Your task to perform on an android device: Open wifi settings Image 0: 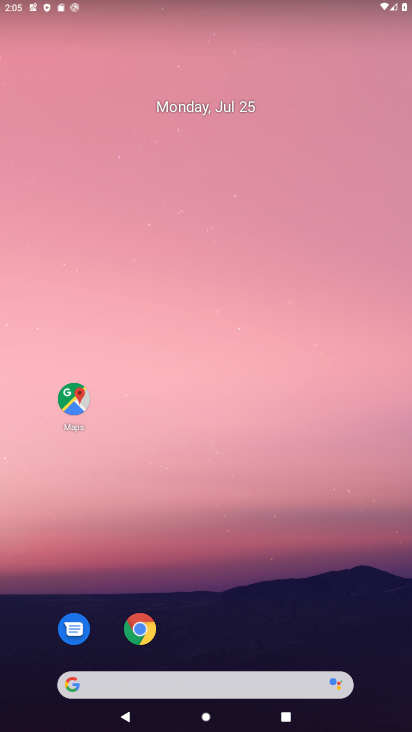
Step 0: drag from (249, 316) to (252, 1)
Your task to perform on an android device: Open wifi settings Image 1: 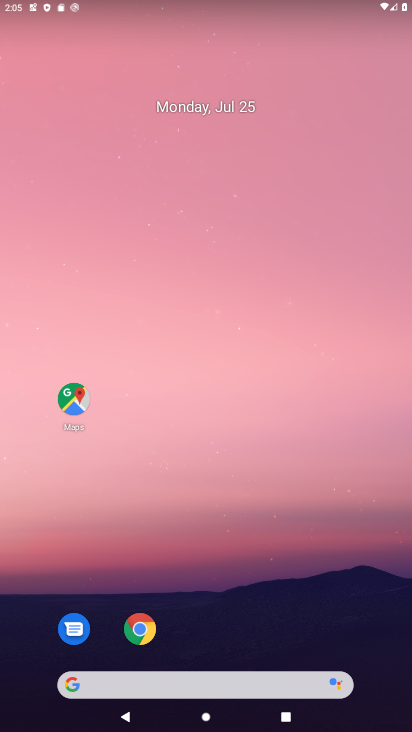
Step 1: drag from (222, 647) to (226, 45)
Your task to perform on an android device: Open wifi settings Image 2: 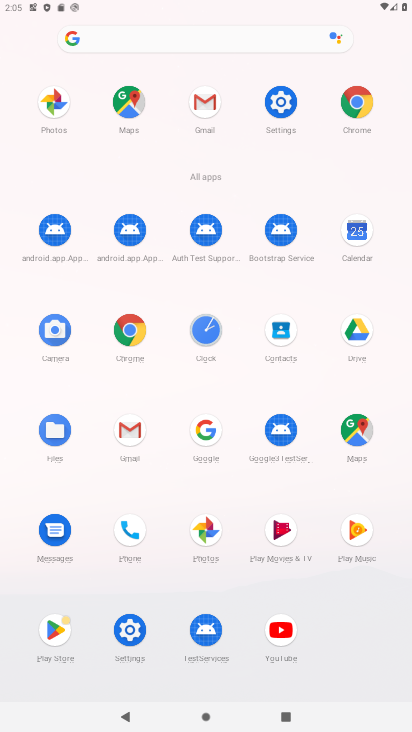
Step 2: click (123, 644)
Your task to perform on an android device: Open wifi settings Image 3: 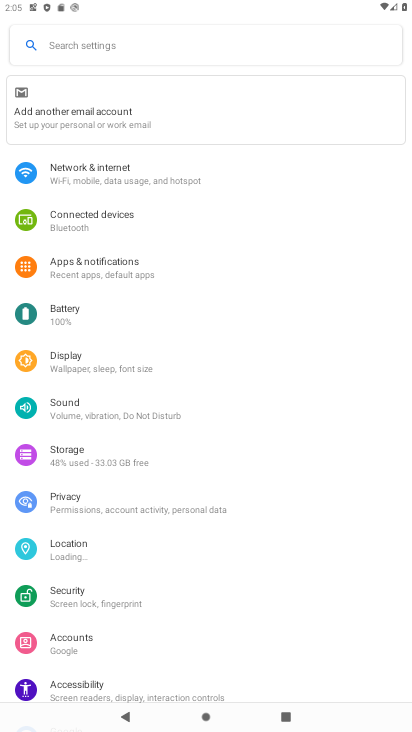
Step 3: click (124, 172)
Your task to perform on an android device: Open wifi settings Image 4: 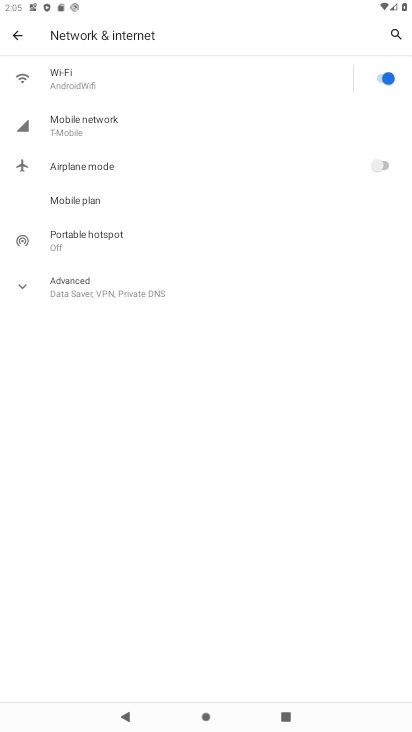
Step 4: click (107, 75)
Your task to perform on an android device: Open wifi settings Image 5: 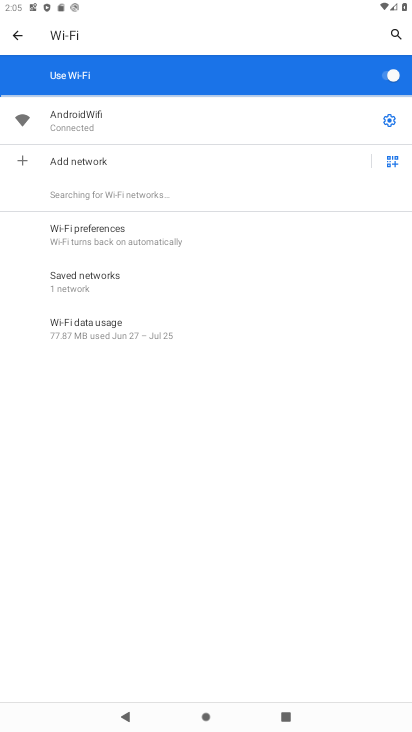
Step 5: task complete